Your task to perform on an android device: Add "bose soundlink mini" to the cart on newegg.com, then select checkout. Image 0: 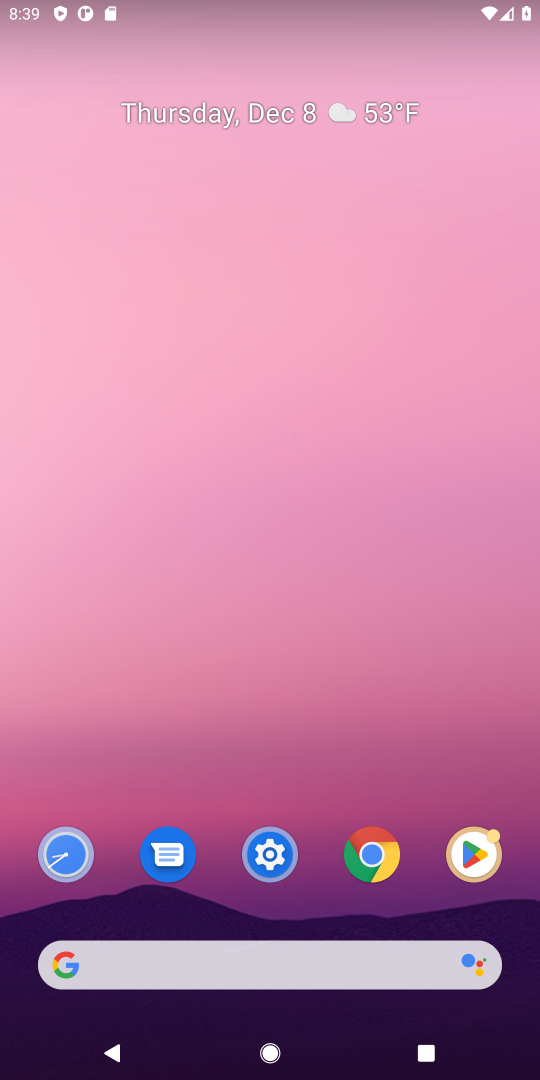
Step 0: press home button
Your task to perform on an android device: Add "bose soundlink mini" to the cart on newegg.com, then select checkout. Image 1: 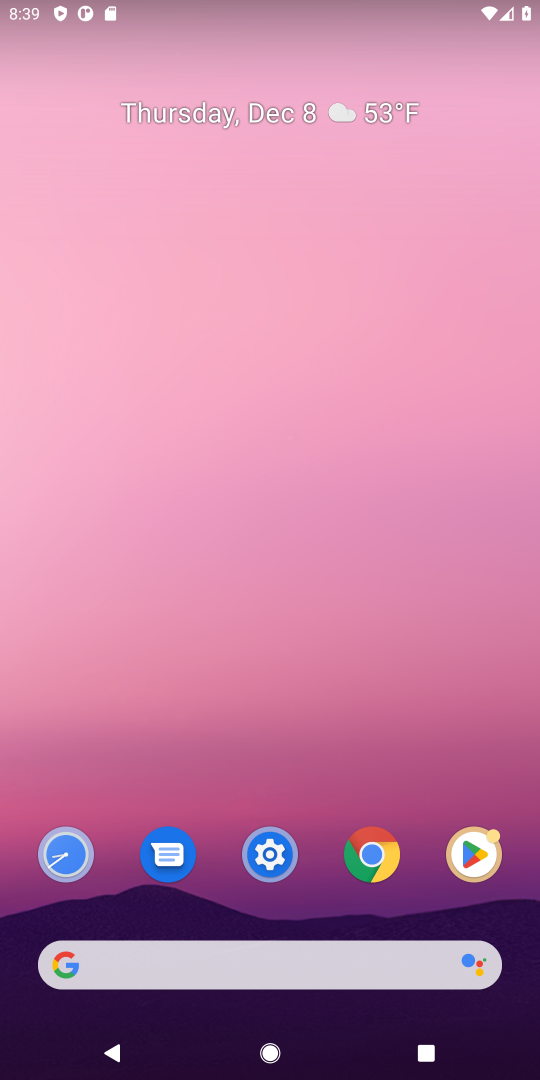
Step 1: click (94, 967)
Your task to perform on an android device: Add "bose soundlink mini" to the cart on newegg.com, then select checkout. Image 2: 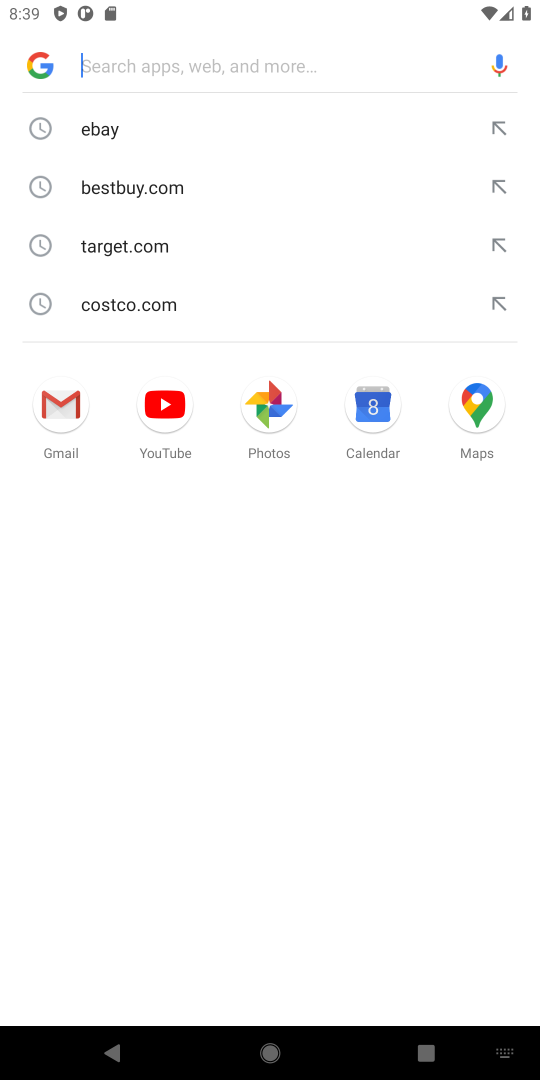
Step 2: type "newegg.com"
Your task to perform on an android device: Add "bose soundlink mini" to the cart on newegg.com, then select checkout. Image 3: 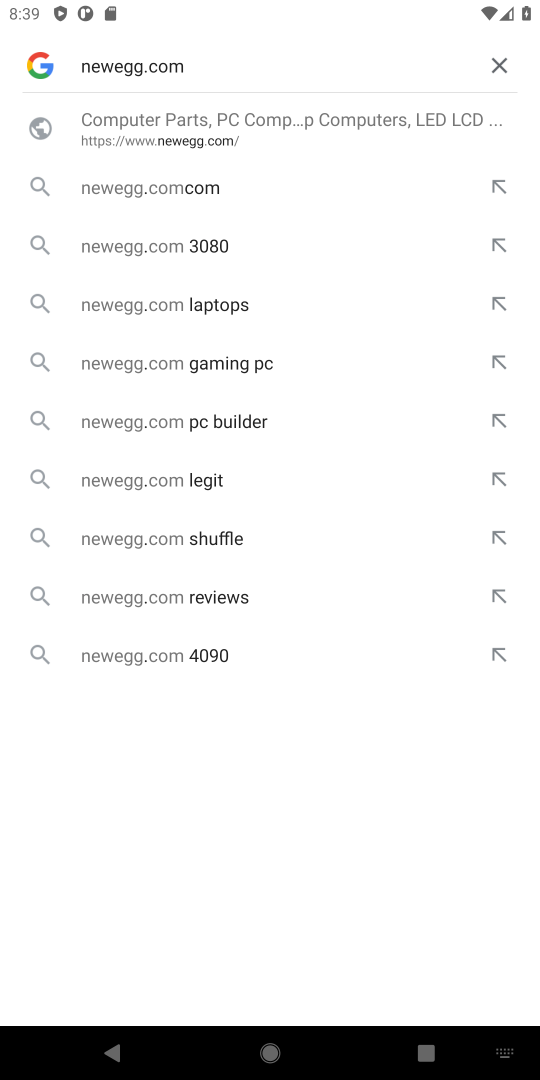
Step 3: press enter
Your task to perform on an android device: Add "bose soundlink mini" to the cart on newegg.com, then select checkout. Image 4: 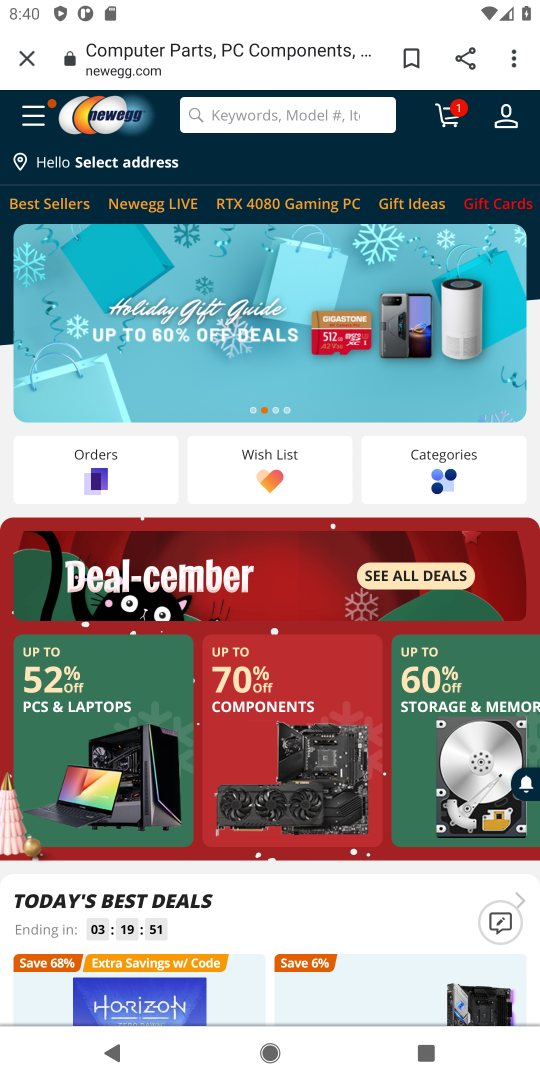
Step 4: click (216, 110)
Your task to perform on an android device: Add "bose soundlink mini" to the cart on newegg.com, then select checkout. Image 5: 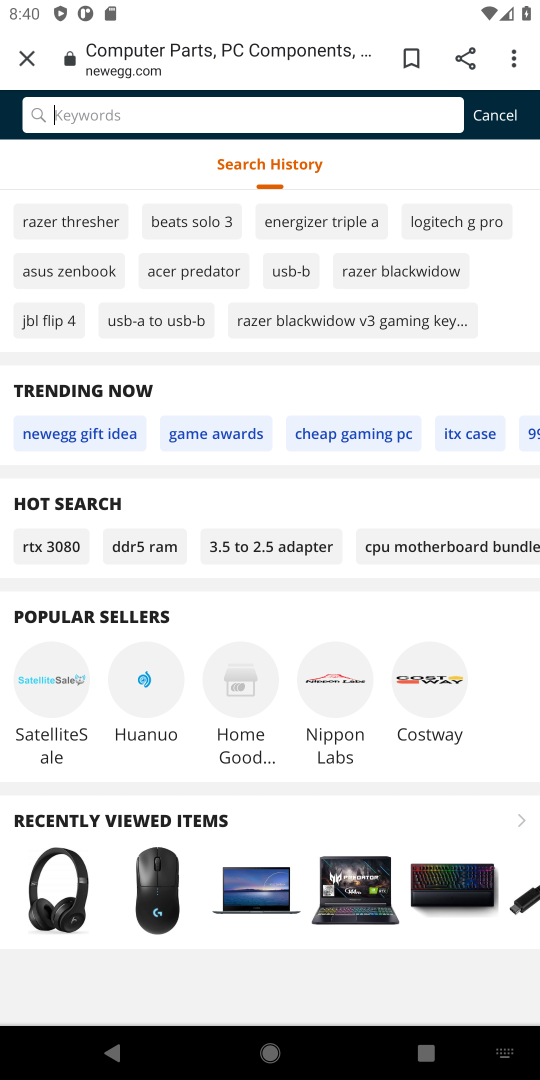
Step 5: type "bose soundlink mini"
Your task to perform on an android device: Add "bose soundlink mini" to the cart on newegg.com, then select checkout. Image 6: 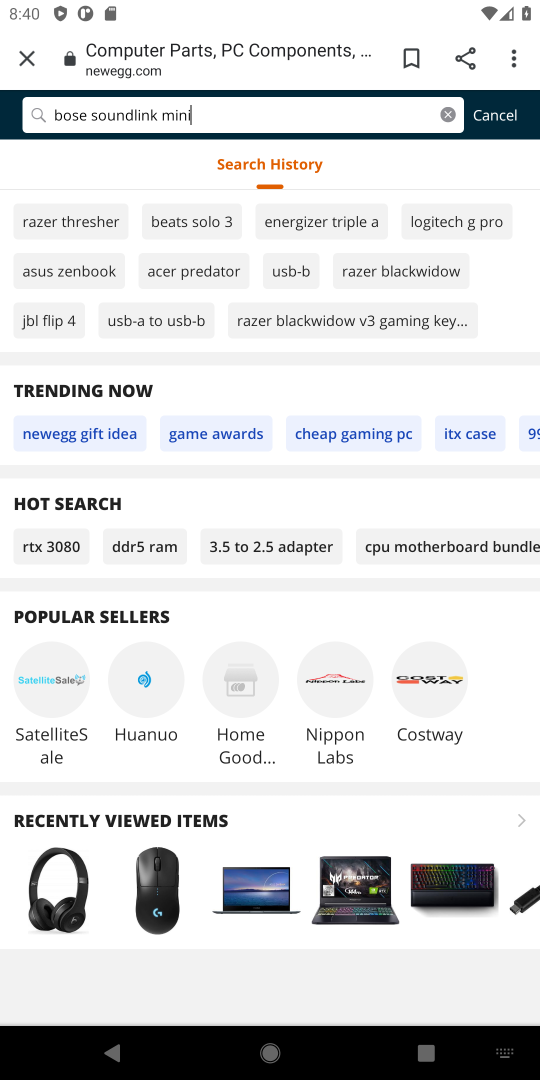
Step 6: press enter
Your task to perform on an android device: Add "bose soundlink mini" to the cart on newegg.com, then select checkout. Image 7: 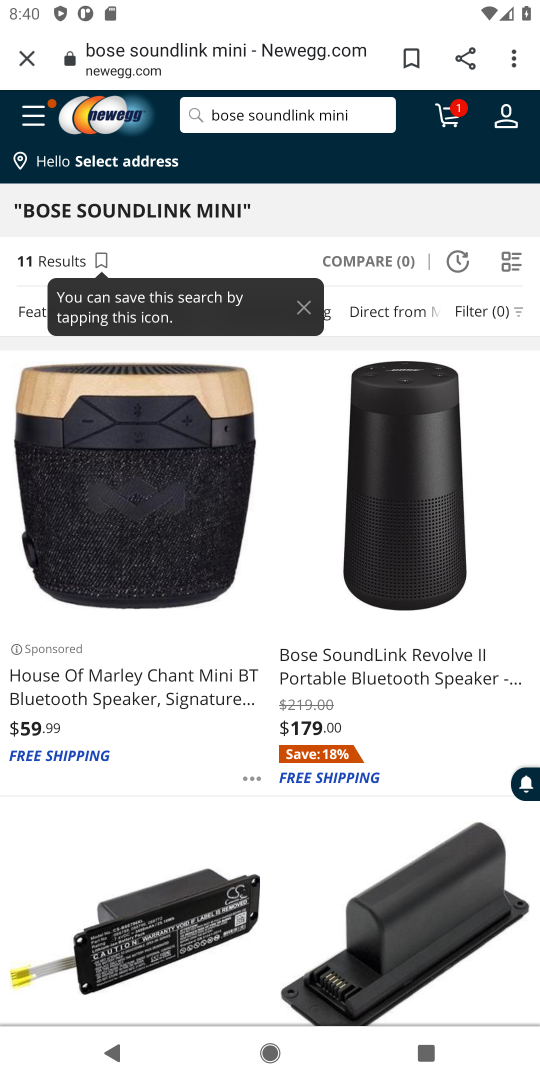
Step 7: task complete